Your task to perform on an android device: all mails in gmail Image 0: 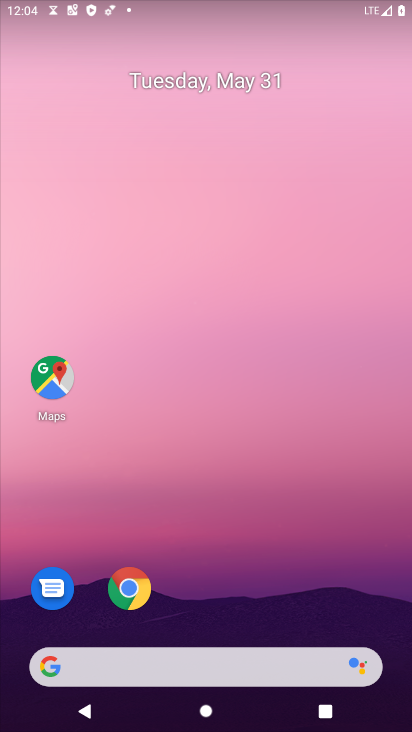
Step 0: drag from (231, 617) to (271, 145)
Your task to perform on an android device: all mails in gmail Image 1: 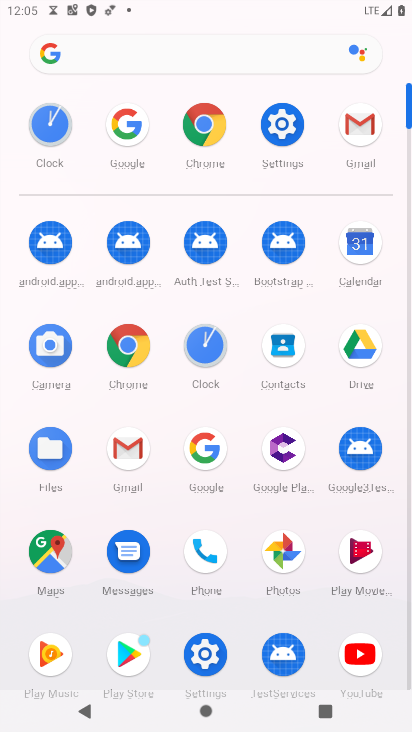
Step 1: click (128, 447)
Your task to perform on an android device: all mails in gmail Image 2: 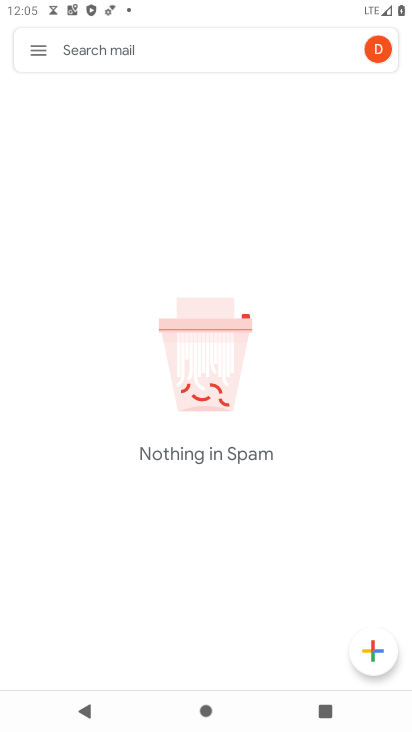
Step 2: click (33, 58)
Your task to perform on an android device: all mails in gmail Image 3: 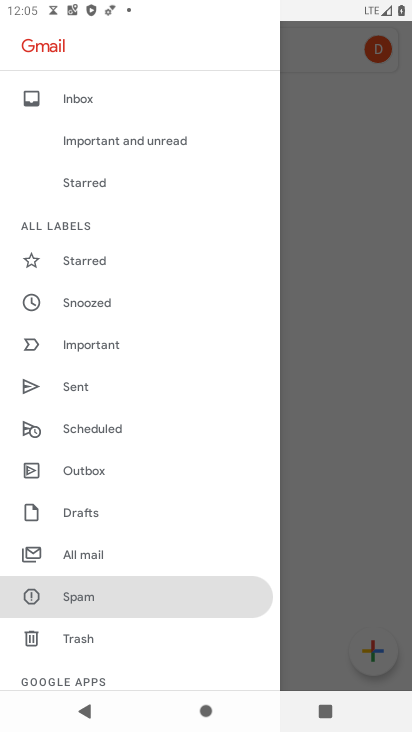
Step 3: click (101, 546)
Your task to perform on an android device: all mails in gmail Image 4: 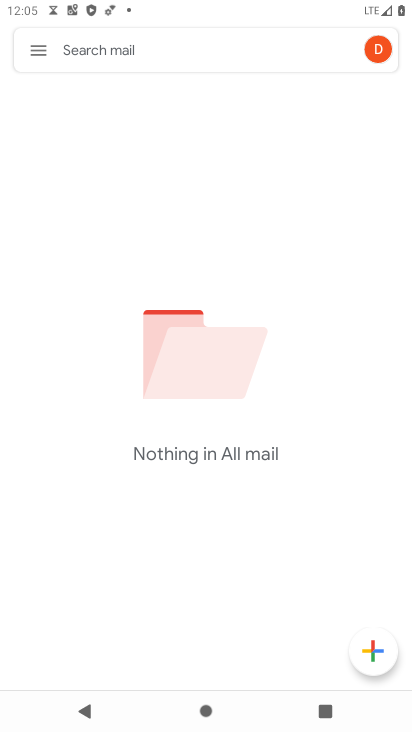
Step 4: task complete